Your task to perform on an android device: clear all cookies in the chrome app Image 0: 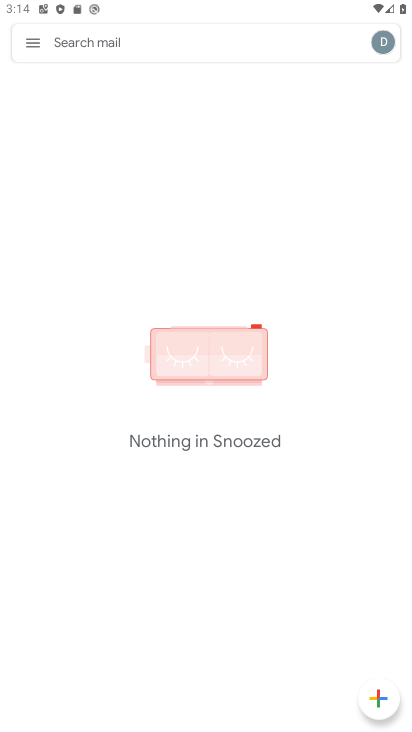
Step 0: press home button
Your task to perform on an android device: clear all cookies in the chrome app Image 1: 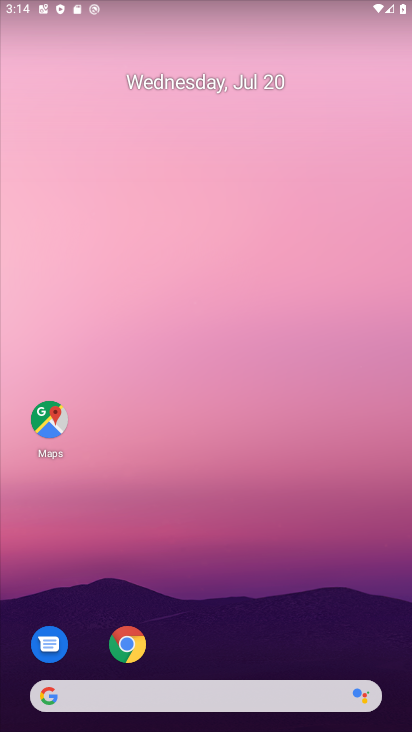
Step 1: drag from (206, 675) to (206, 300)
Your task to perform on an android device: clear all cookies in the chrome app Image 2: 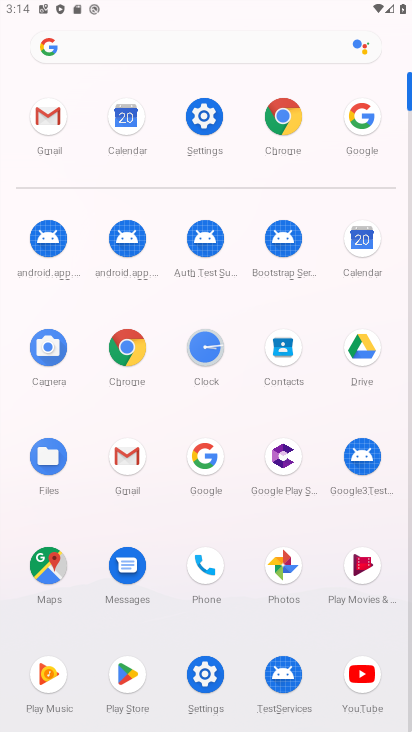
Step 2: click (287, 118)
Your task to perform on an android device: clear all cookies in the chrome app Image 3: 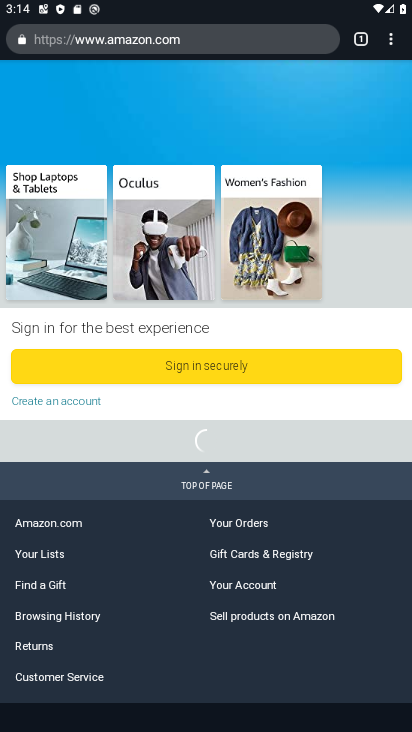
Step 3: click (390, 36)
Your task to perform on an android device: clear all cookies in the chrome app Image 4: 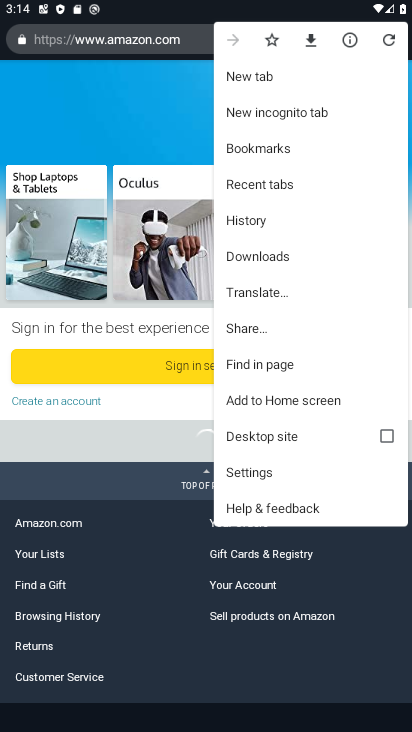
Step 4: click (258, 222)
Your task to perform on an android device: clear all cookies in the chrome app Image 5: 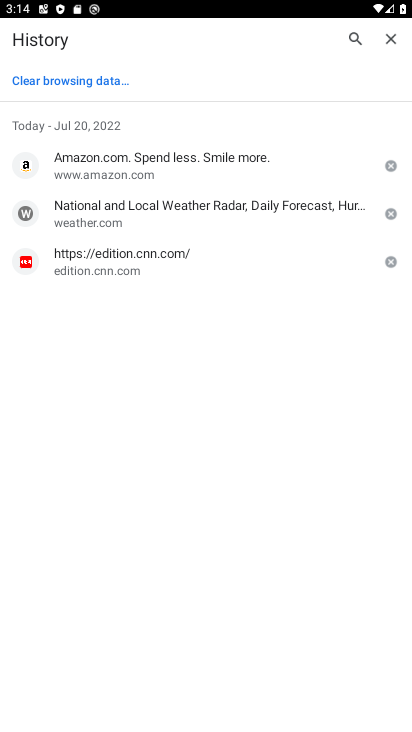
Step 5: click (60, 85)
Your task to perform on an android device: clear all cookies in the chrome app Image 6: 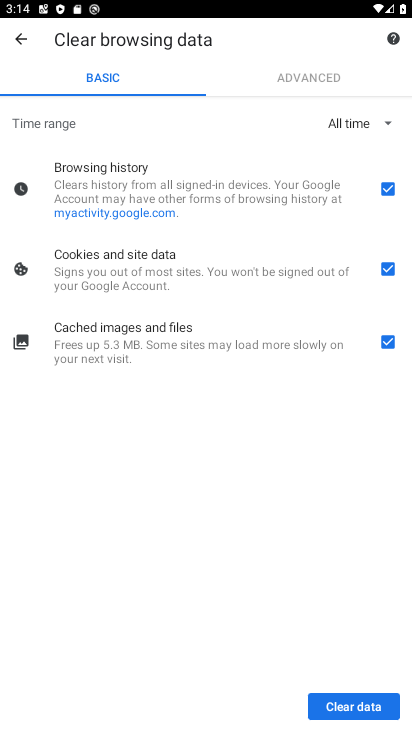
Step 6: click (345, 707)
Your task to perform on an android device: clear all cookies in the chrome app Image 7: 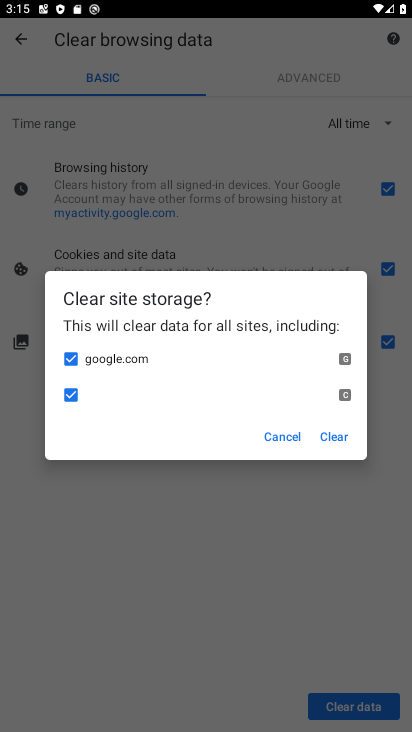
Step 7: click (330, 430)
Your task to perform on an android device: clear all cookies in the chrome app Image 8: 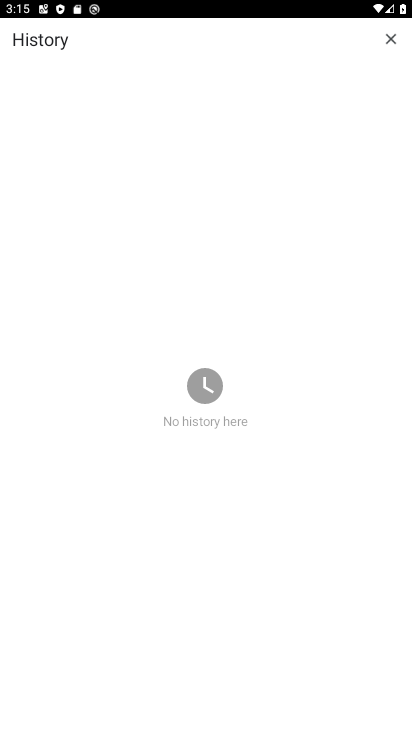
Step 8: task complete